Your task to perform on an android device: Open maps Image 0: 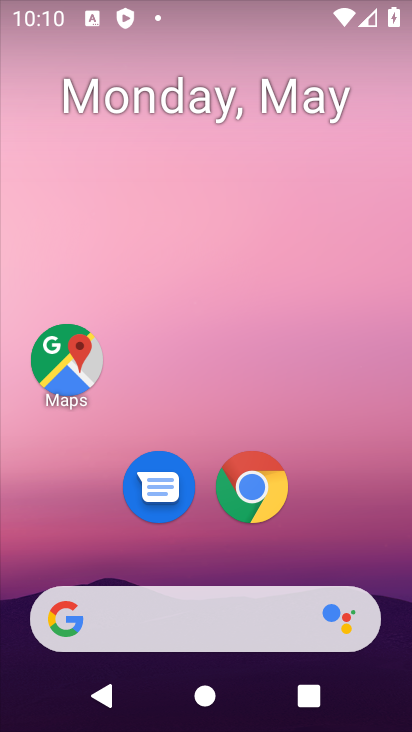
Step 0: click (90, 343)
Your task to perform on an android device: Open maps Image 1: 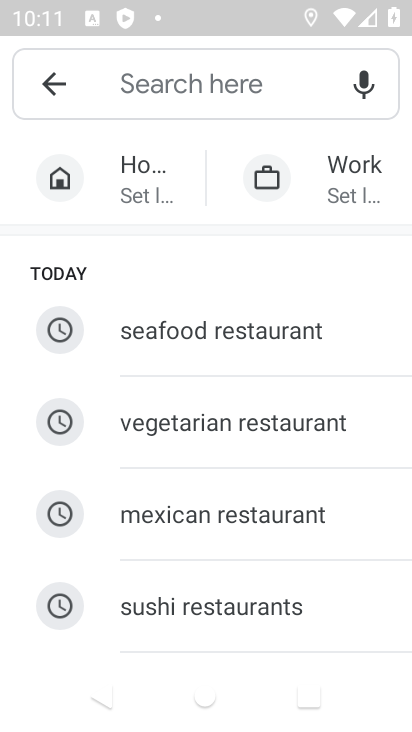
Step 1: task complete